Your task to perform on an android device: What's the weather today? Image 0: 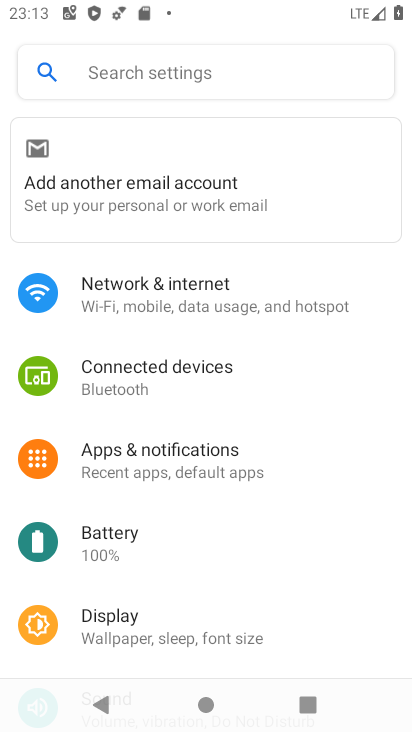
Step 0: drag from (207, 597) to (277, 122)
Your task to perform on an android device: What's the weather today? Image 1: 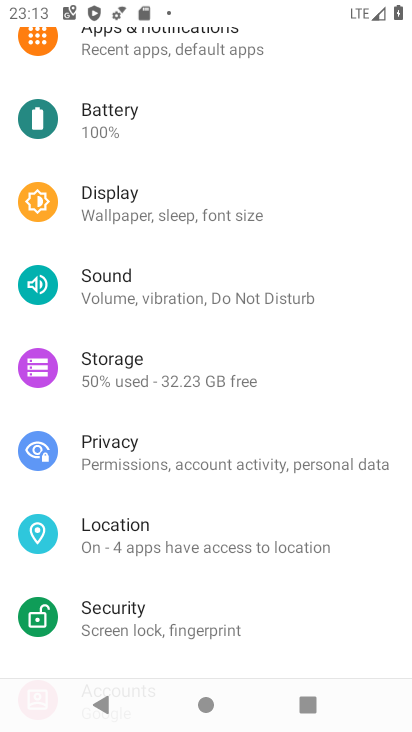
Step 1: press home button
Your task to perform on an android device: What's the weather today? Image 2: 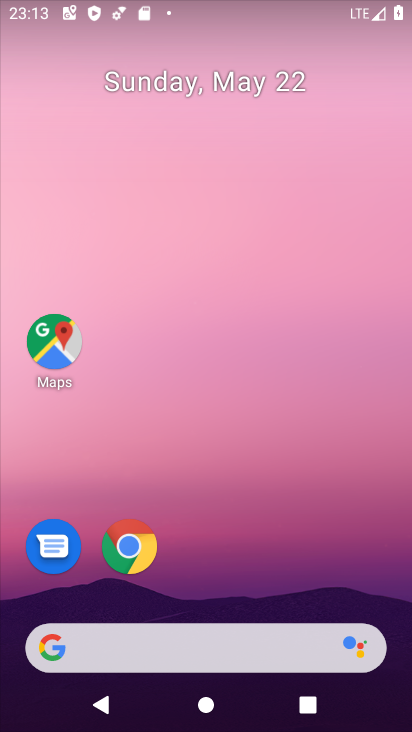
Step 2: drag from (203, 490) to (240, 103)
Your task to perform on an android device: What's the weather today? Image 3: 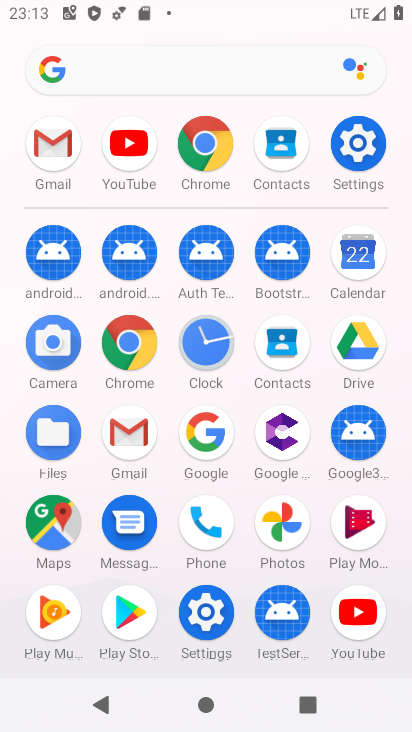
Step 3: click (172, 67)
Your task to perform on an android device: What's the weather today? Image 4: 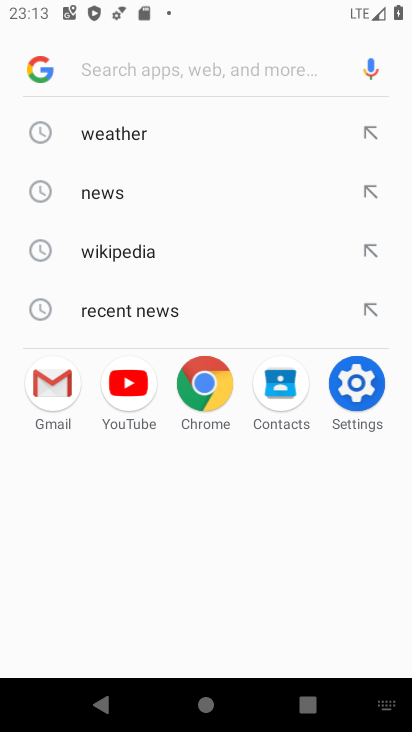
Step 4: type "weather today"
Your task to perform on an android device: What's the weather today? Image 5: 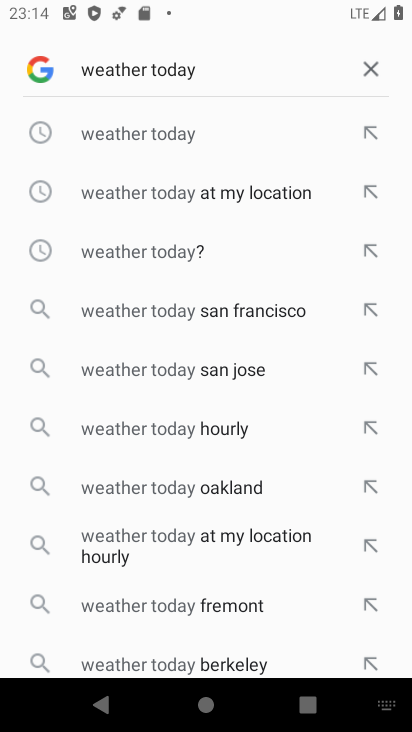
Step 5: drag from (187, 551) to (234, 210)
Your task to perform on an android device: What's the weather today? Image 6: 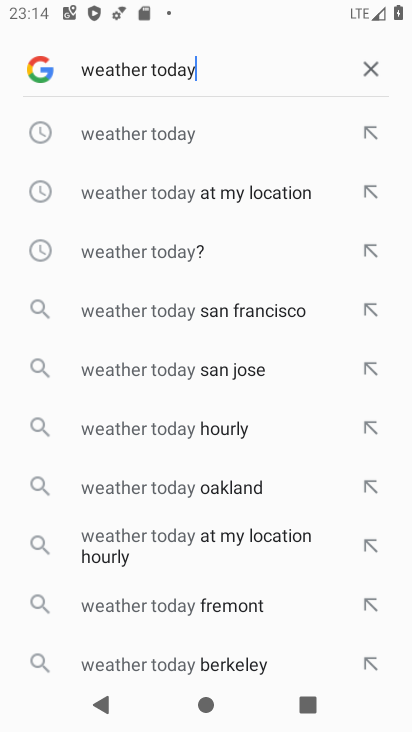
Step 6: click (171, 138)
Your task to perform on an android device: What's the weather today? Image 7: 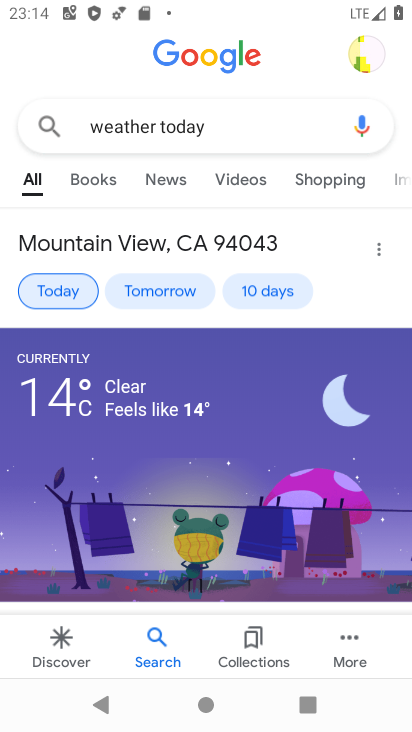
Step 7: task complete